Your task to perform on an android device: find photos in the google photos app Image 0: 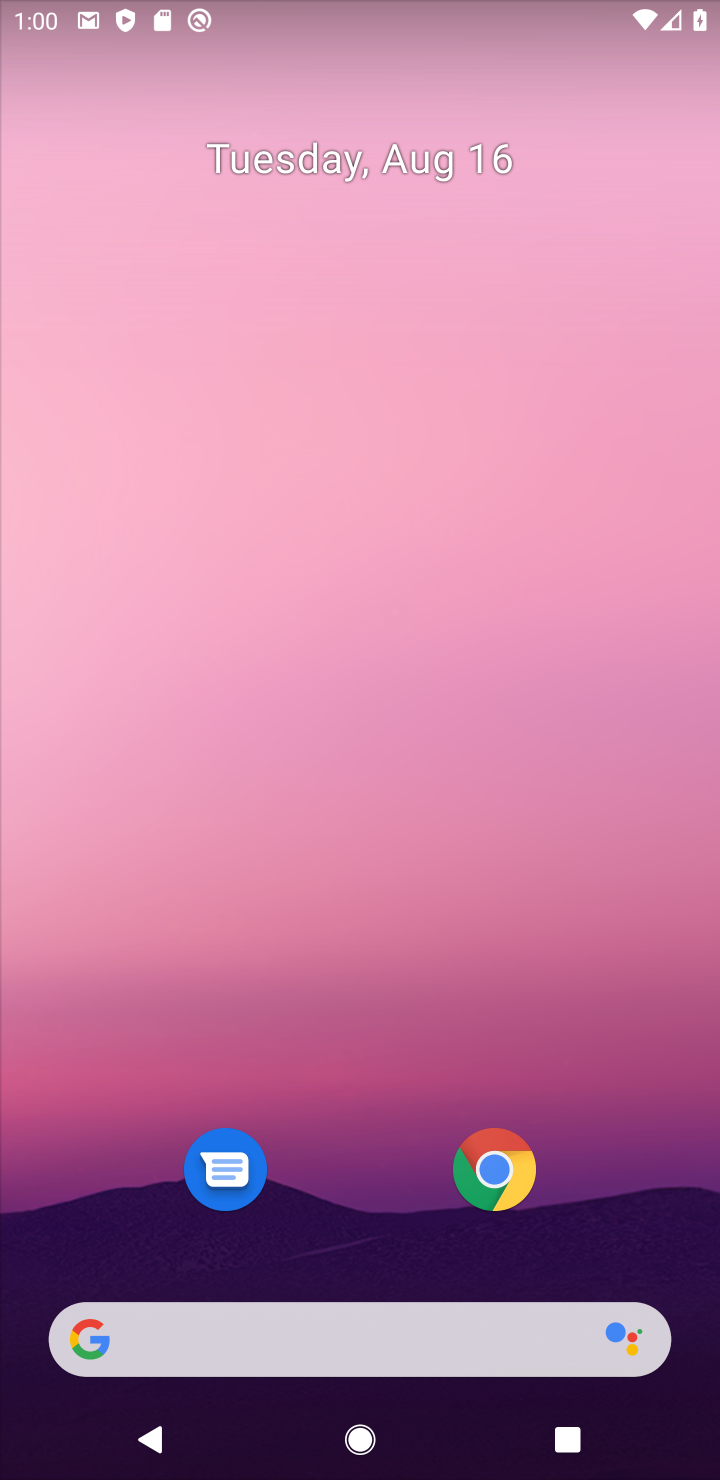
Step 0: click (495, 1130)
Your task to perform on an android device: find photos in the google photos app Image 1: 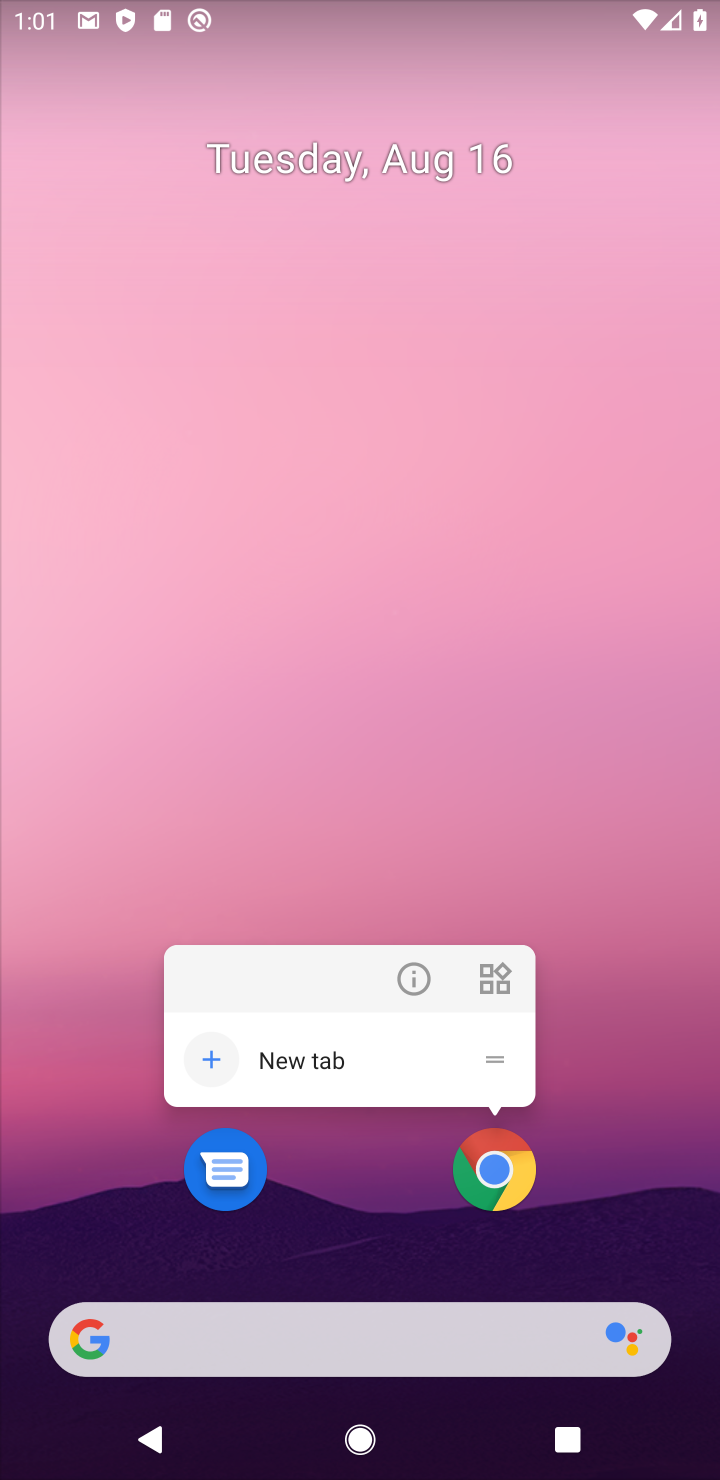
Step 1: task complete